Your task to perform on an android device: Search for flights from NYC to Buenos aires Image 0: 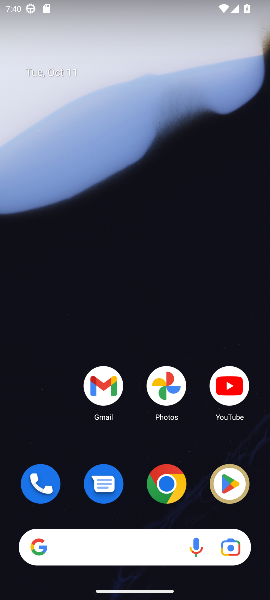
Step 0: click (166, 486)
Your task to perform on an android device: Search for flights from NYC to Buenos aires Image 1: 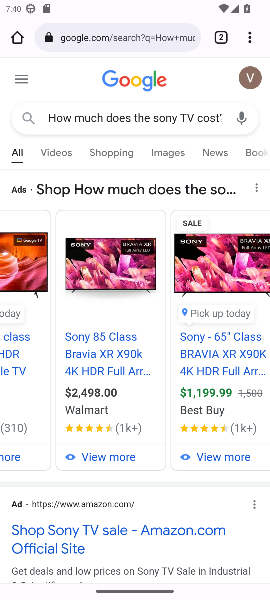
Step 1: click (152, 35)
Your task to perform on an android device: Search for flights from NYC to Buenos aires Image 2: 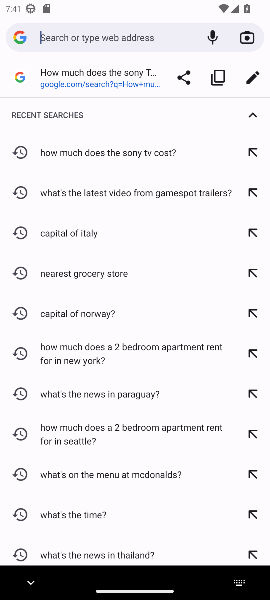
Step 2: type "flights from NYC to Buenos aires"
Your task to perform on an android device: Search for flights from NYC to Buenos aires Image 3: 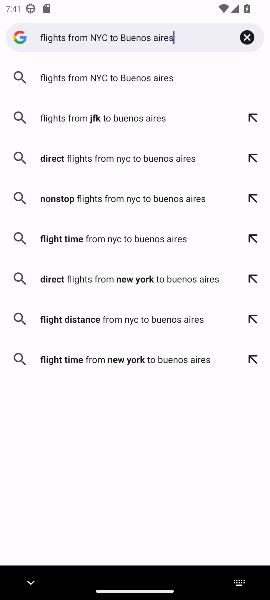
Step 3: click (96, 80)
Your task to perform on an android device: Search for flights from NYC to Buenos aires Image 4: 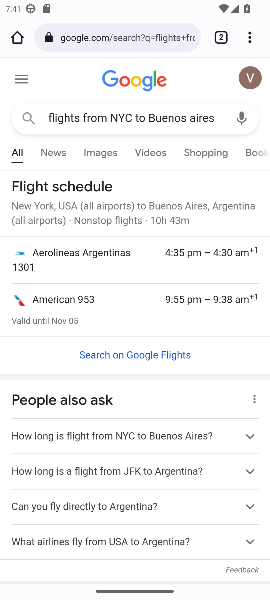
Step 4: task complete